Your task to perform on an android device: Do I have any events this weekend? Image 0: 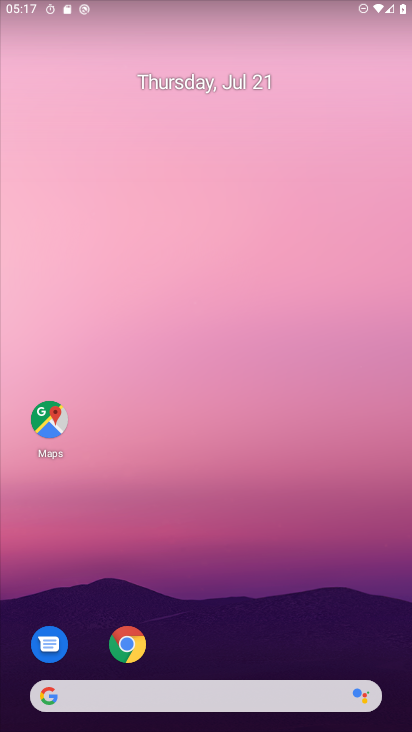
Step 0: drag from (205, 460) to (224, 242)
Your task to perform on an android device: Do I have any events this weekend? Image 1: 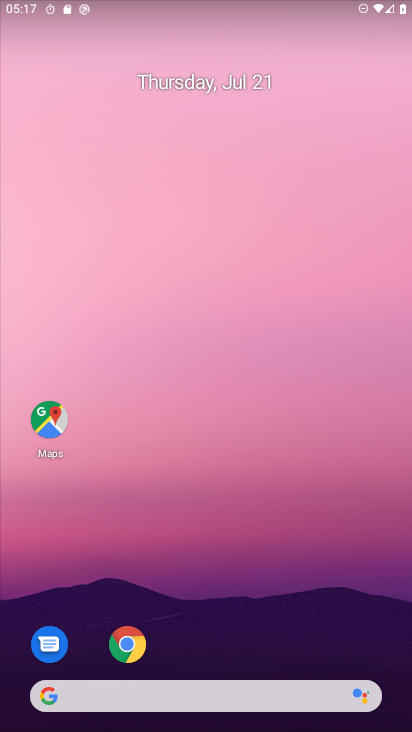
Step 1: drag from (210, 598) to (220, 99)
Your task to perform on an android device: Do I have any events this weekend? Image 2: 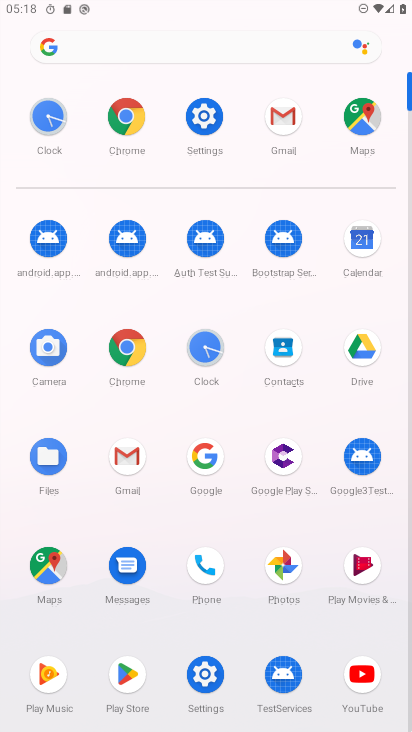
Step 2: click (362, 250)
Your task to perform on an android device: Do I have any events this weekend? Image 3: 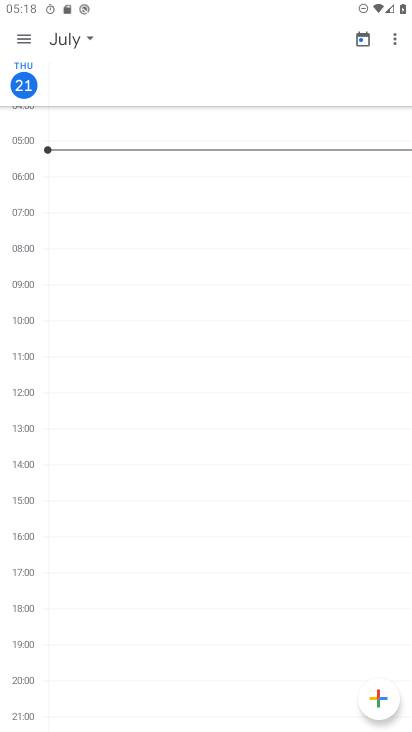
Step 3: click (73, 42)
Your task to perform on an android device: Do I have any events this weekend? Image 4: 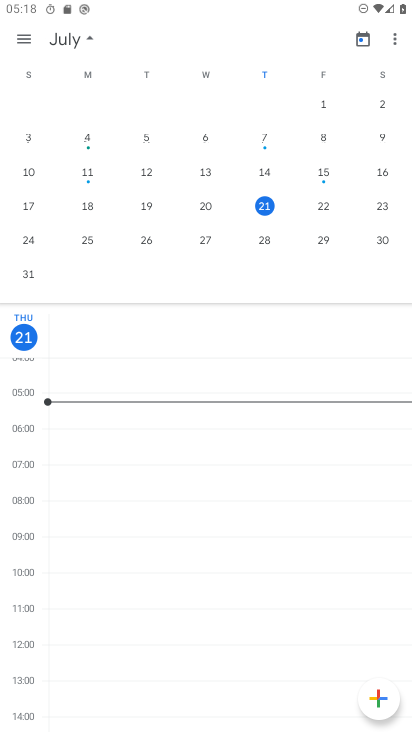
Step 4: click (20, 35)
Your task to perform on an android device: Do I have any events this weekend? Image 5: 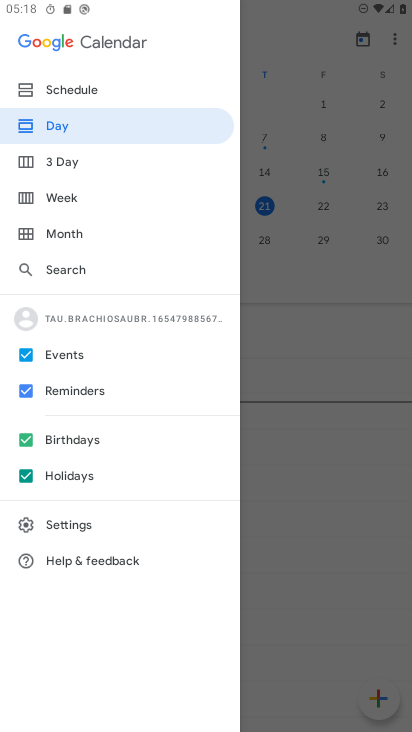
Step 5: click (52, 193)
Your task to perform on an android device: Do I have any events this weekend? Image 6: 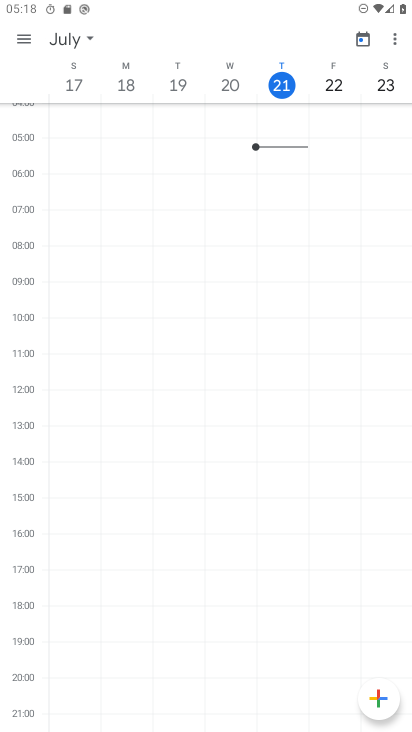
Step 6: click (179, 75)
Your task to perform on an android device: Do I have any events this weekend? Image 7: 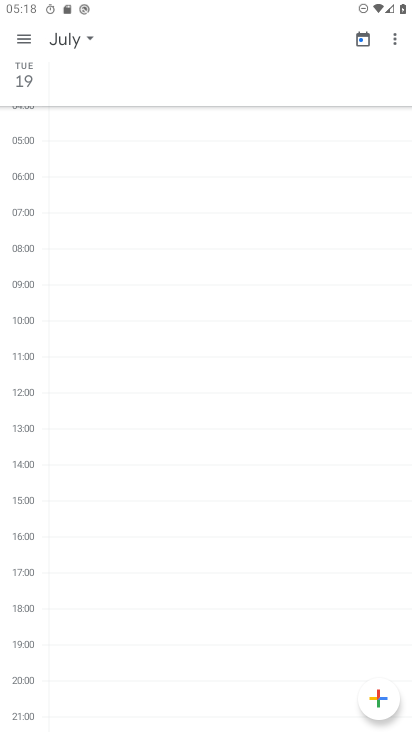
Step 7: click (68, 38)
Your task to perform on an android device: Do I have any events this weekend? Image 8: 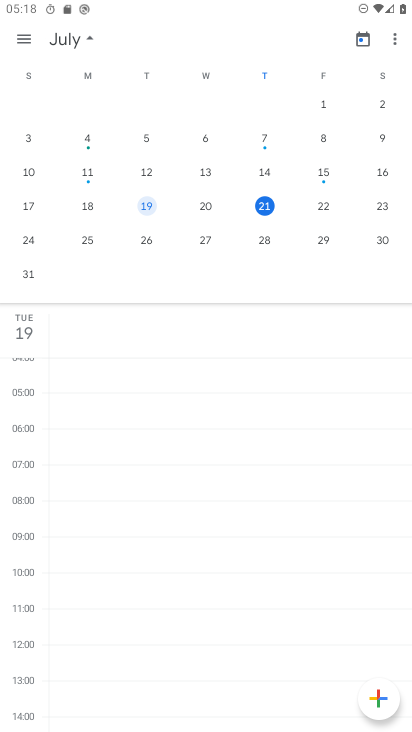
Step 8: click (26, 206)
Your task to perform on an android device: Do I have any events this weekend? Image 9: 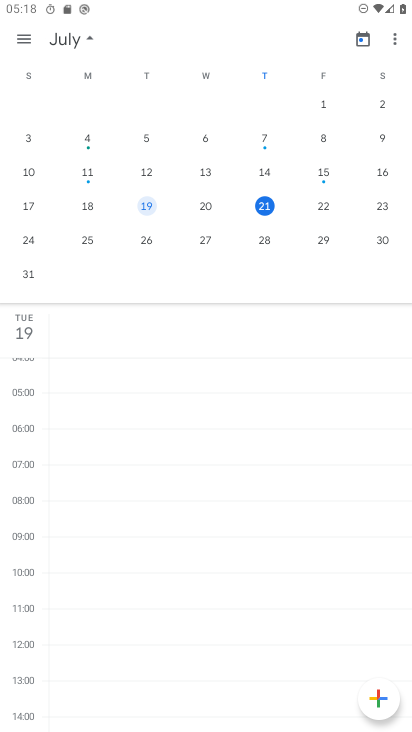
Step 9: click (26, 206)
Your task to perform on an android device: Do I have any events this weekend? Image 10: 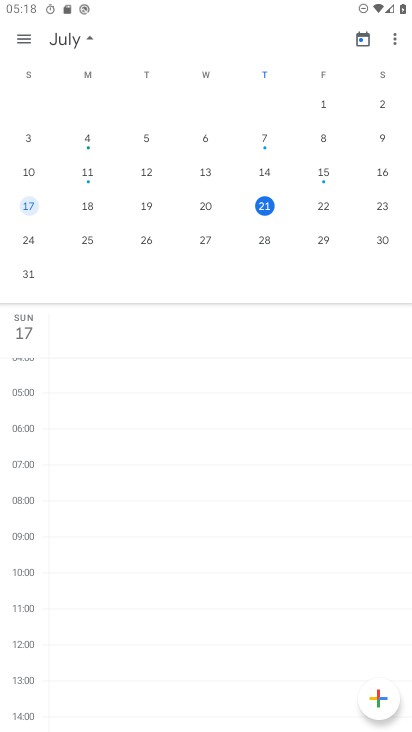
Step 10: click (31, 36)
Your task to perform on an android device: Do I have any events this weekend? Image 11: 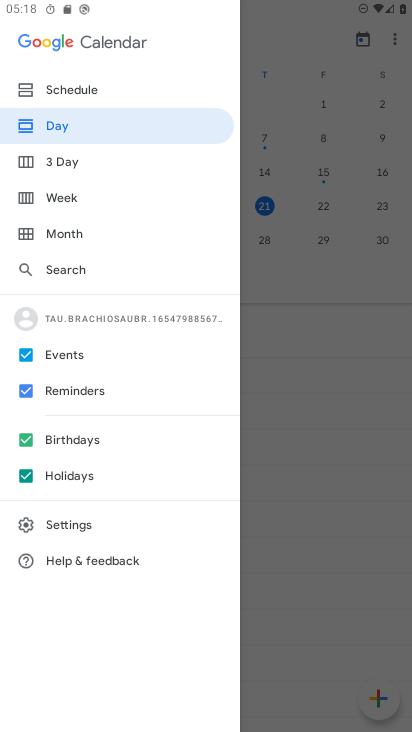
Step 11: click (55, 201)
Your task to perform on an android device: Do I have any events this weekend? Image 12: 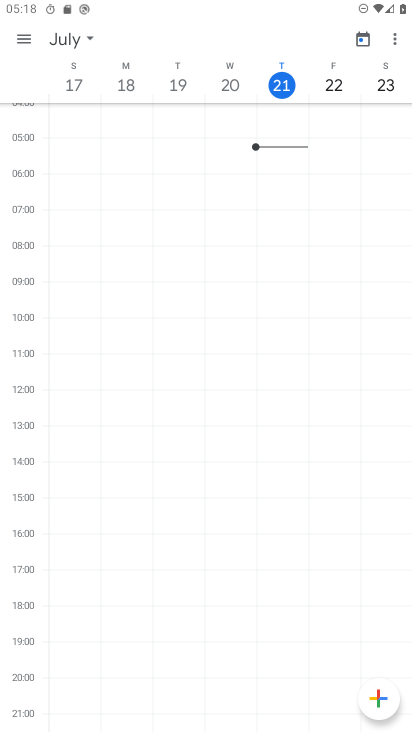
Step 12: task complete